Your task to perform on an android device: Go to battery settings Image 0: 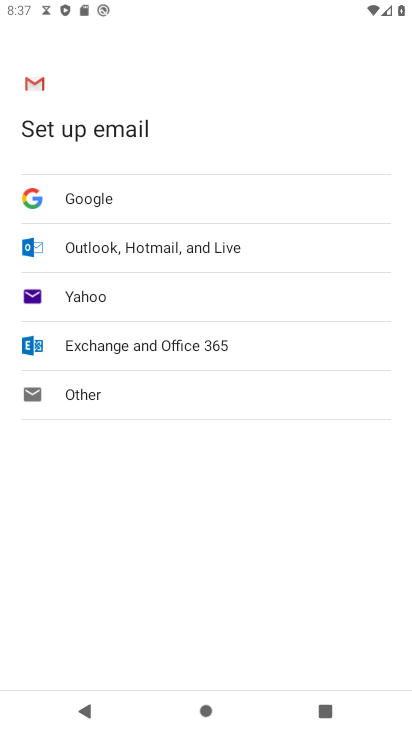
Step 0: press home button
Your task to perform on an android device: Go to battery settings Image 1: 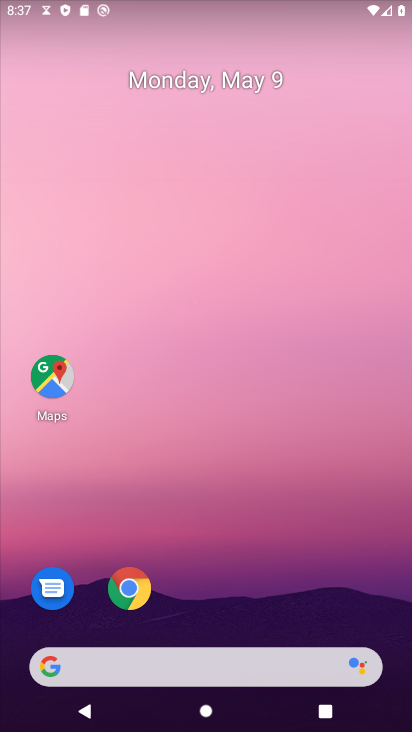
Step 1: drag from (195, 633) to (272, 48)
Your task to perform on an android device: Go to battery settings Image 2: 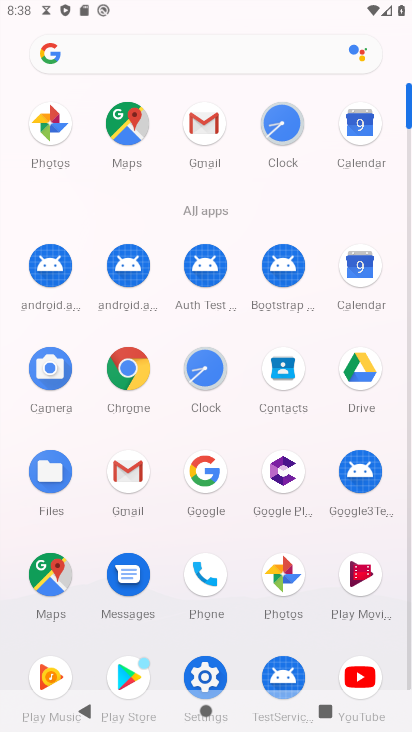
Step 2: click (201, 670)
Your task to perform on an android device: Go to battery settings Image 3: 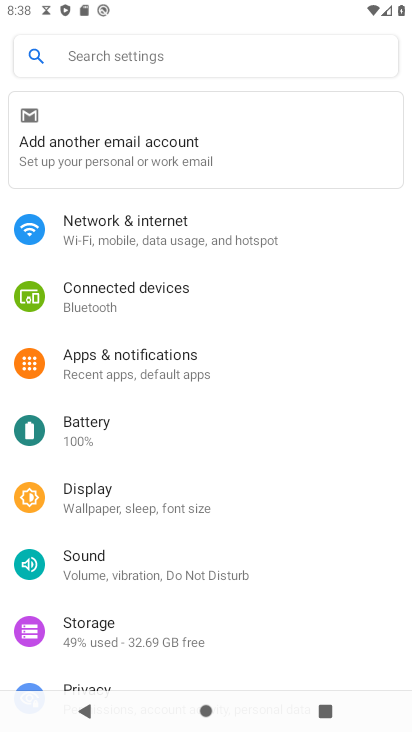
Step 3: click (142, 431)
Your task to perform on an android device: Go to battery settings Image 4: 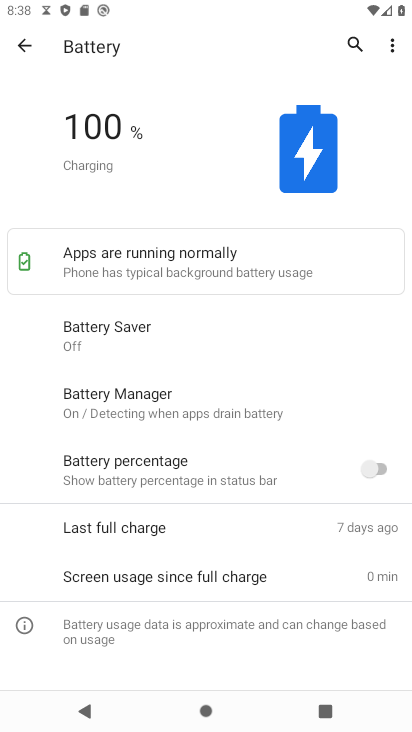
Step 4: task complete